Your task to perform on an android device: open app "Paramount+ | Peak Streaming" Image 0: 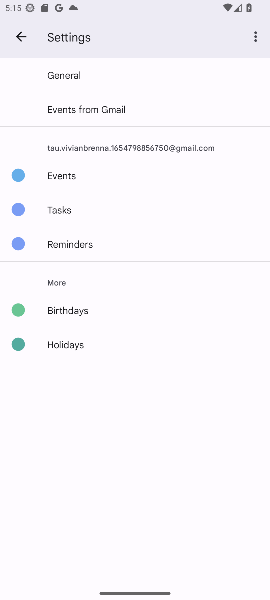
Step 0: press home button
Your task to perform on an android device: open app "Paramount+ | Peak Streaming" Image 1: 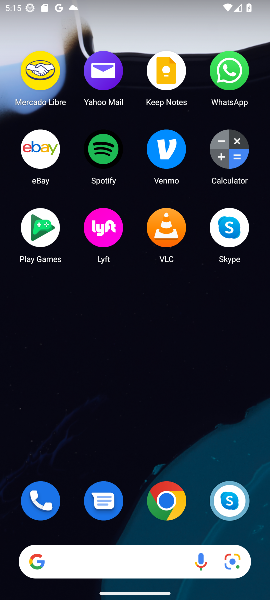
Step 1: drag from (132, 474) to (131, 62)
Your task to perform on an android device: open app "Paramount+ | Peak Streaming" Image 2: 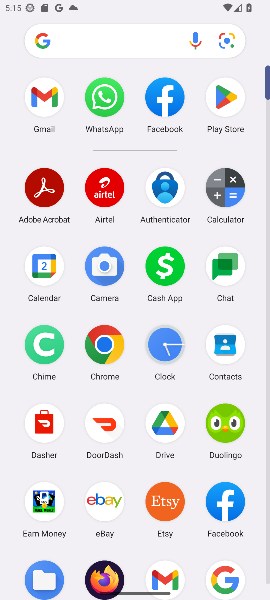
Step 2: click (224, 103)
Your task to perform on an android device: open app "Paramount+ | Peak Streaming" Image 3: 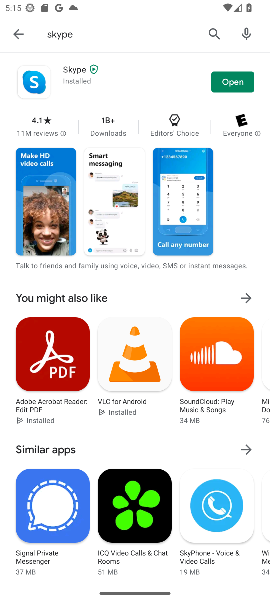
Step 3: click (215, 34)
Your task to perform on an android device: open app "Paramount+ | Peak Streaming" Image 4: 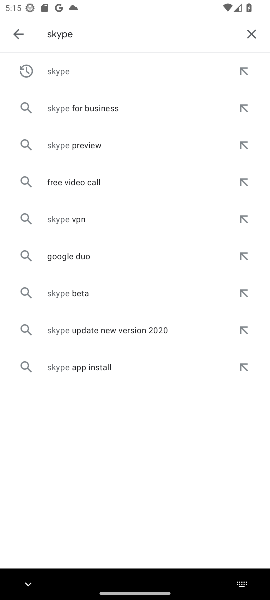
Step 4: click (245, 30)
Your task to perform on an android device: open app "Paramount+ | Peak Streaming" Image 5: 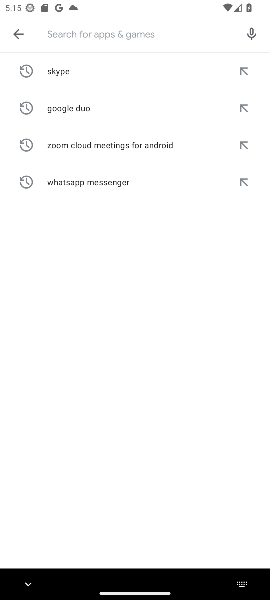
Step 5: type "Paramount+ | Peak Streaming"
Your task to perform on an android device: open app "Paramount+ | Peak Streaming" Image 6: 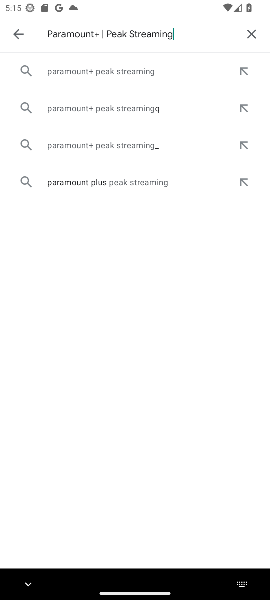
Step 6: click (62, 76)
Your task to perform on an android device: open app "Paramount+ | Peak Streaming" Image 7: 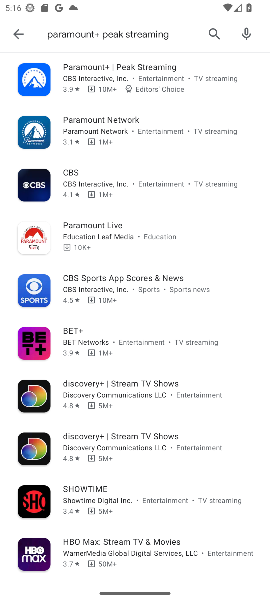
Step 7: click (94, 84)
Your task to perform on an android device: open app "Paramount+ | Peak Streaming" Image 8: 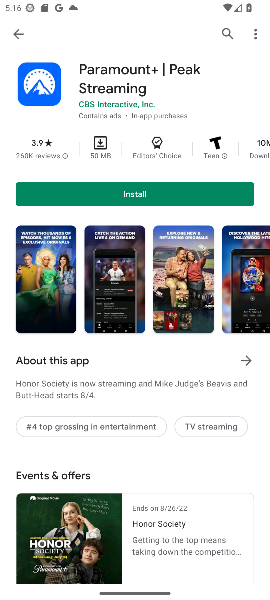
Step 8: task complete